Your task to perform on an android device: Go to Reddit.com Image 0: 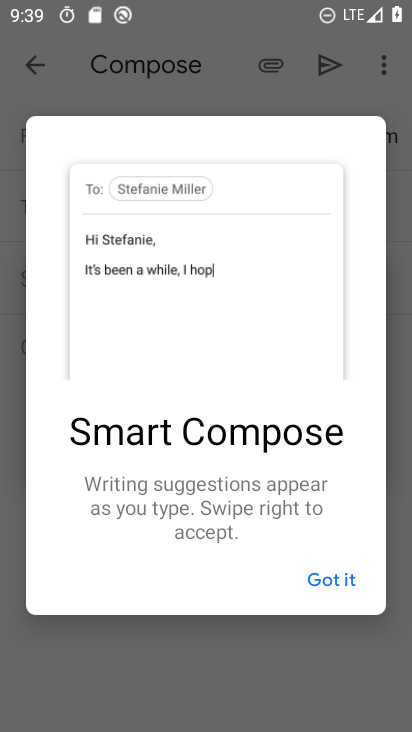
Step 0: press home button
Your task to perform on an android device: Go to Reddit.com Image 1: 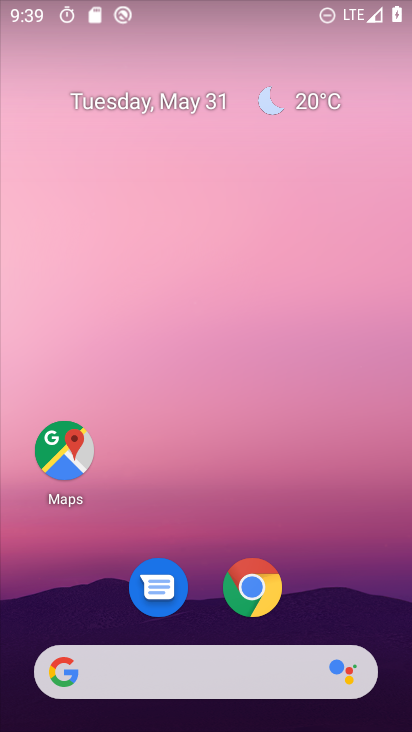
Step 1: click (212, 671)
Your task to perform on an android device: Go to Reddit.com Image 2: 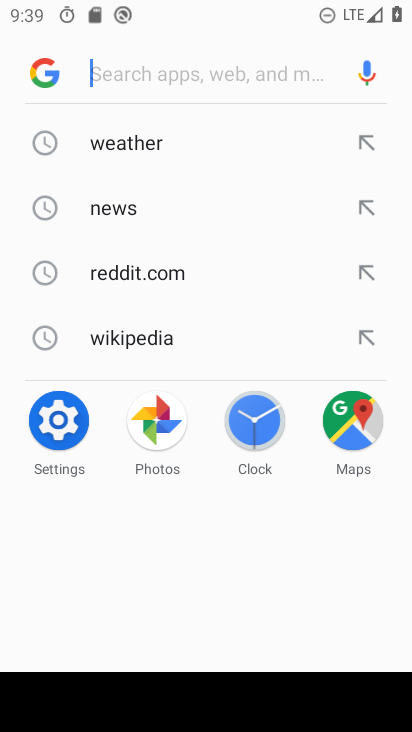
Step 2: click (270, 271)
Your task to perform on an android device: Go to Reddit.com Image 3: 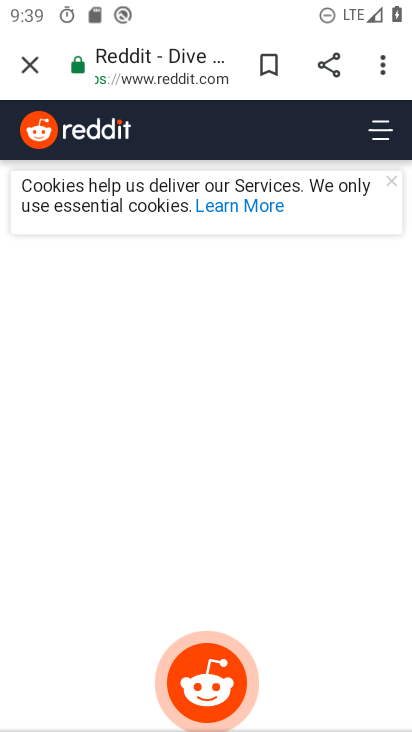
Step 3: task complete